Your task to perform on an android device: Search for pizza restaurants on Maps Image 0: 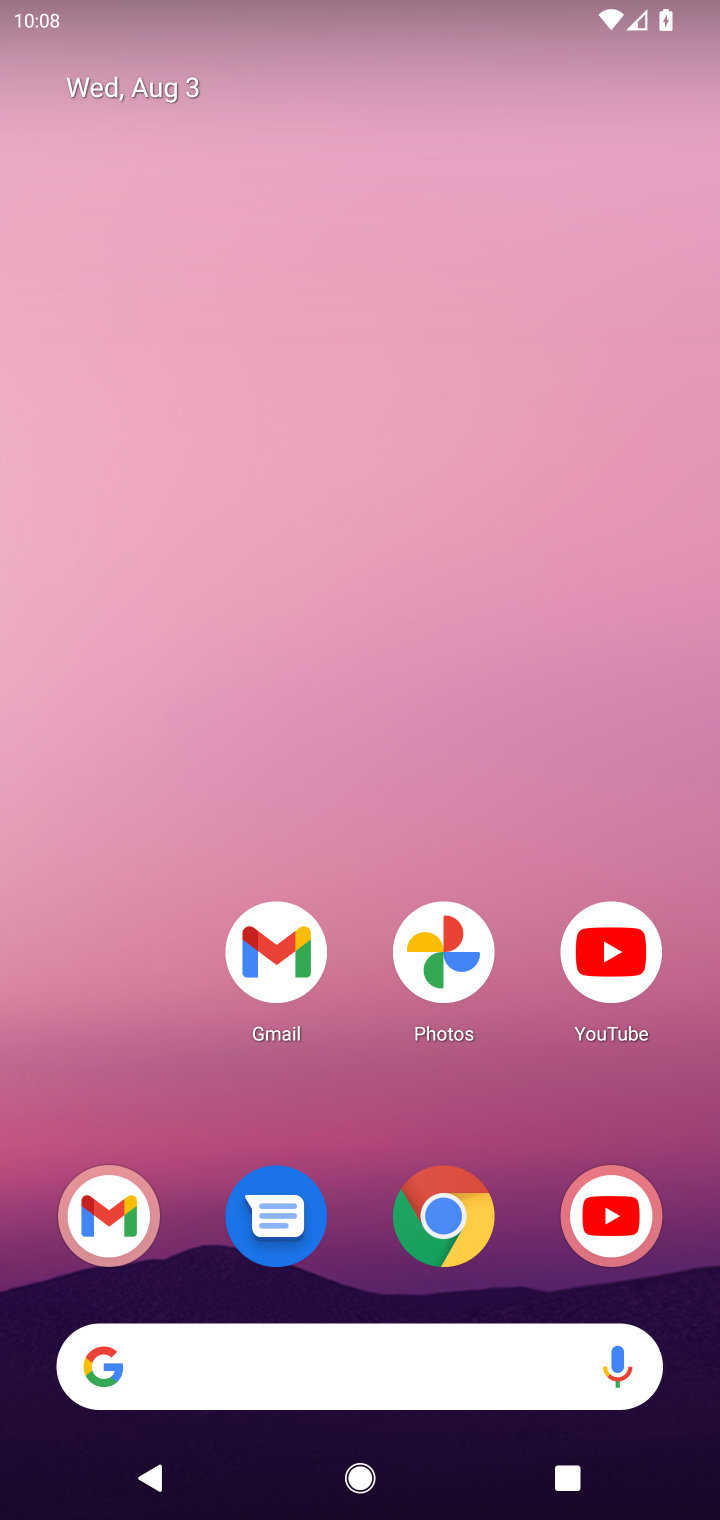
Step 0: drag from (145, 1108) to (353, 66)
Your task to perform on an android device: Search for pizza restaurants on Maps Image 1: 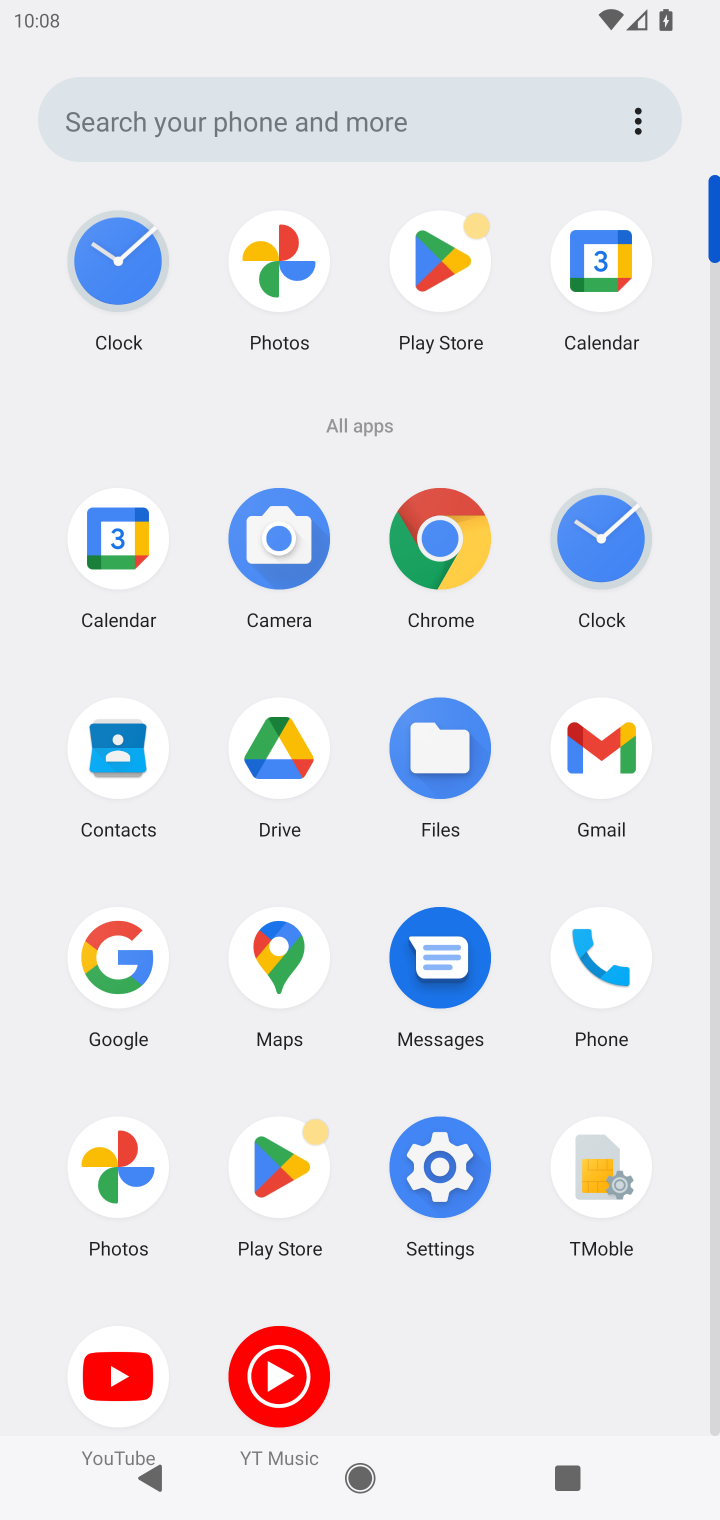
Step 1: click (309, 963)
Your task to perform on an android device: Search for pizza restaurants on Maps Image 2: 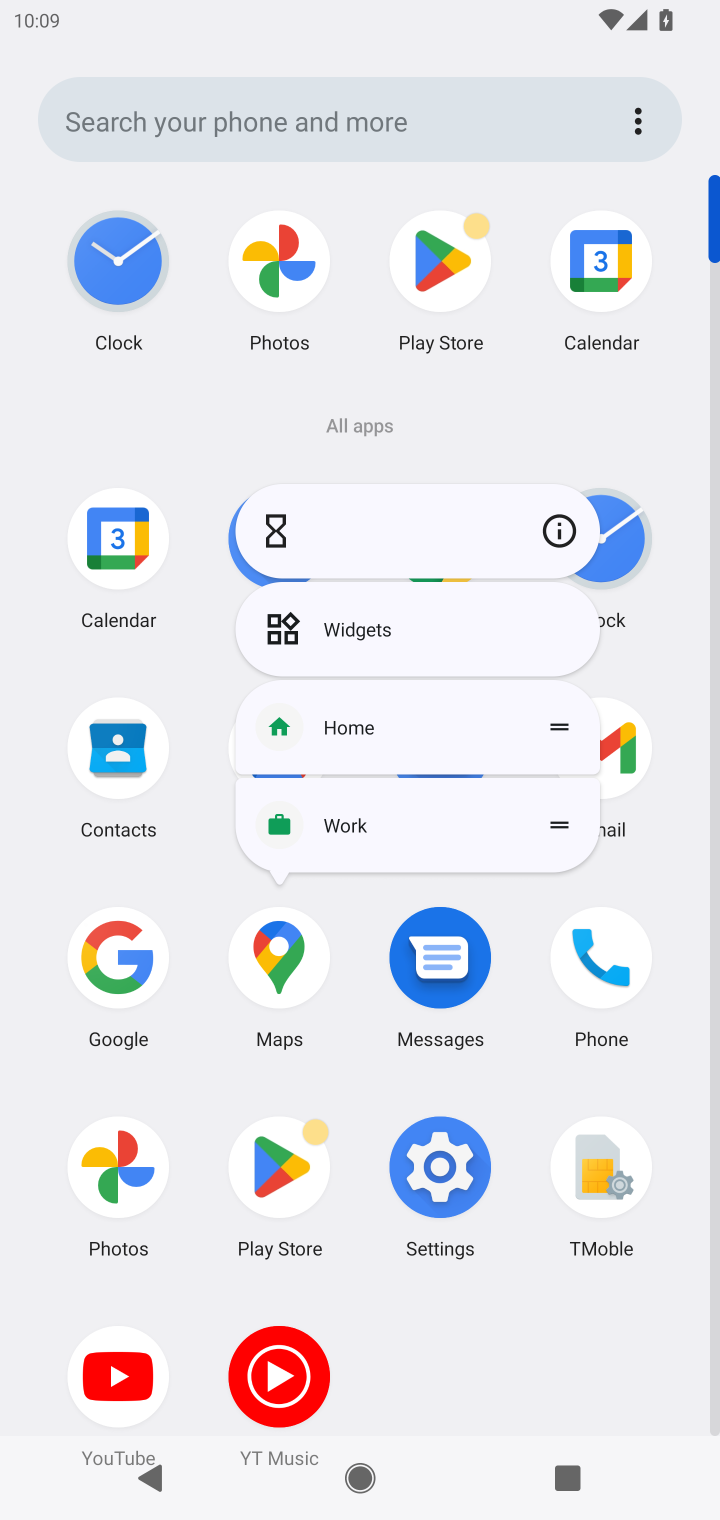
Step 2: click (270, 929)
Your task to perform on an android device: Search for pizza restaurants on Maps Image 3: 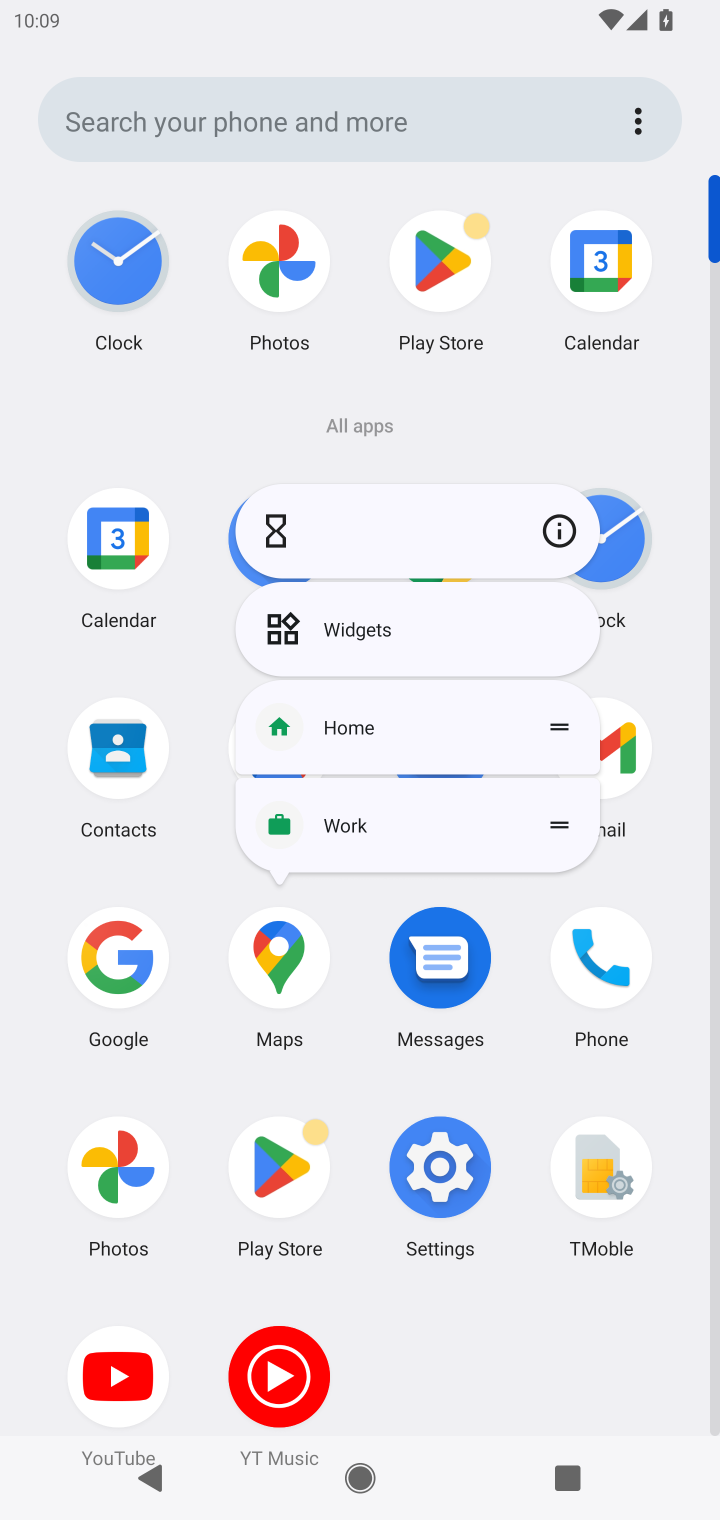
Step 3: click (272, 951)
Your task to perform on an android device: Search for pizza restaurants on Maps Image 4: 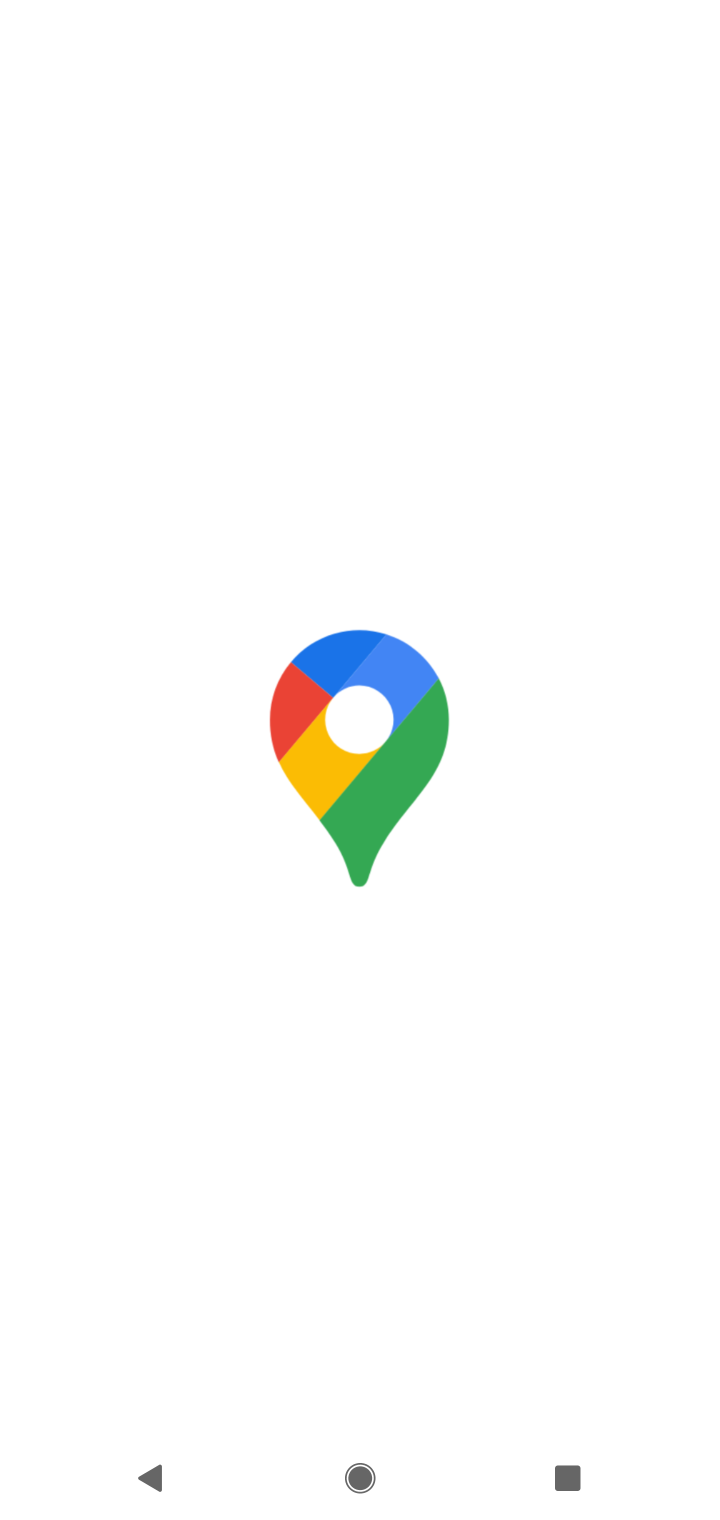
Step 4: task complete